Your task to perform on an android device: Search for seafood restaurants on Google Maps Image 0: 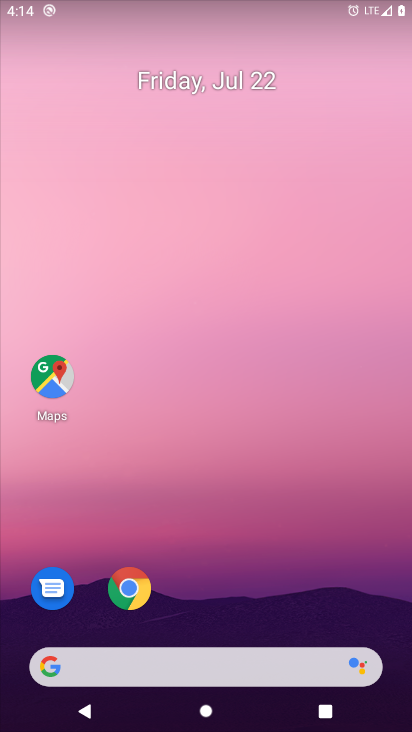
Step 0: drag from (286, 584) to (258, 100)
Your task to perform on an android device: Search for seafood restaurants on Google Maps Image 1: 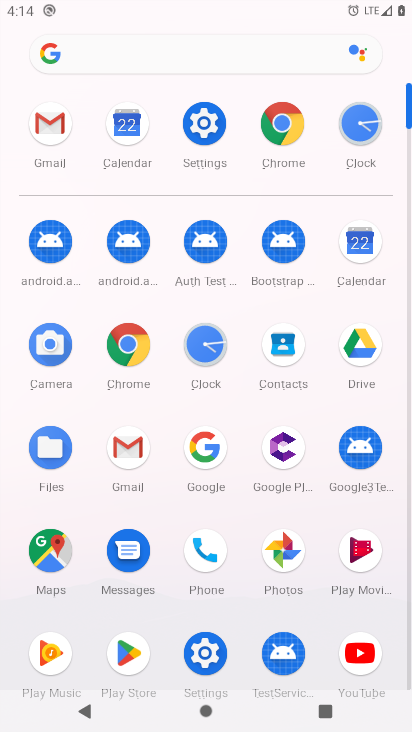
Step 1: click (45, 556)
Your task to perform on an android device: Search for seafood restaurants on Google Maps Image 2: 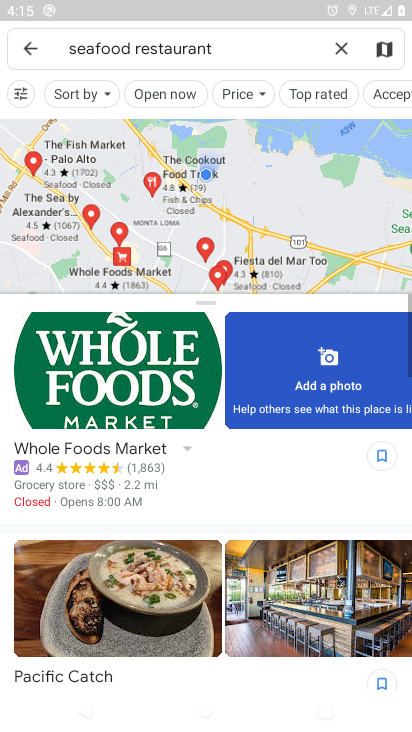
Step 2: task complete